Your task to perform on an android device: toggle pop-ups in chrome Image 0: 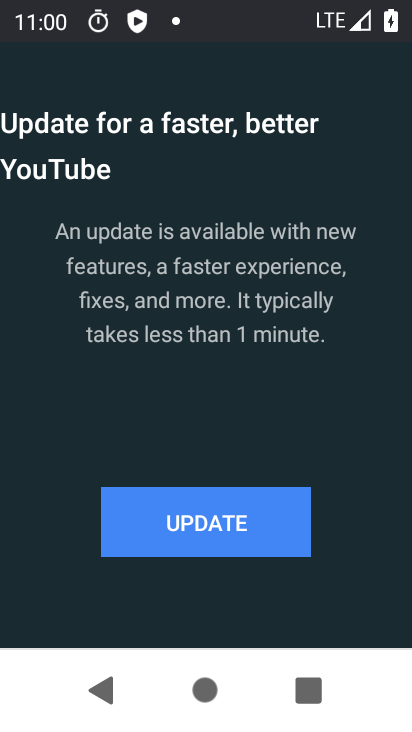
Step 0: click (242, 540)
Your task to perform on an android device: toggle pop-ups in chrome Image 1: 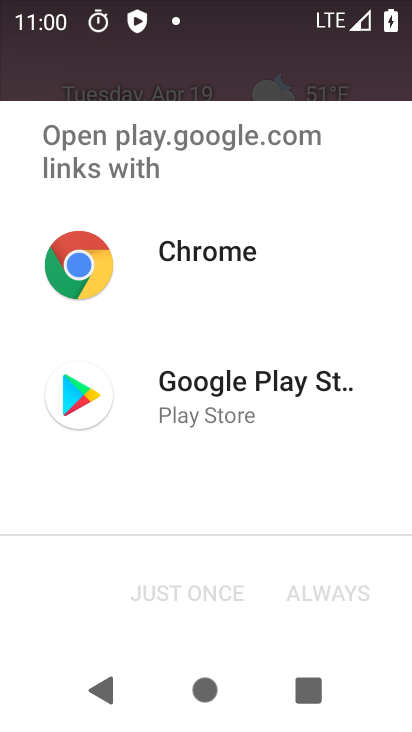
Step 1: press home button
Your task to perform on an android device: toggle pop-ups in chrome Image 2: 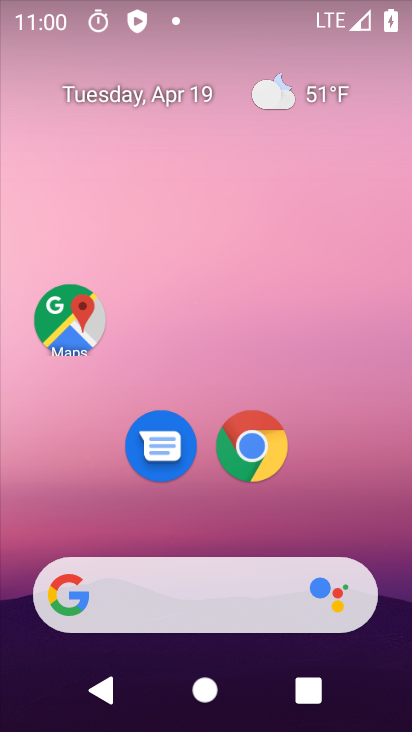
Step 2: click (250, 456)
Your task to perform on an android device: toggle pop-ups in chrome Image 3: 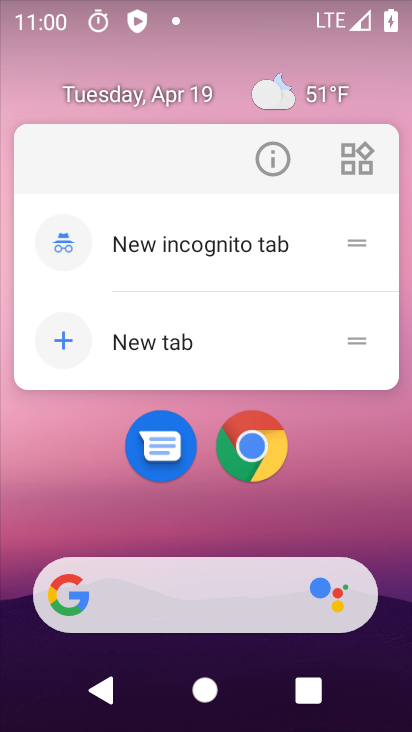
Step 3: click (250, 456)
Your task to perform on an android device: toggle pop-ups in chrome Image 4: 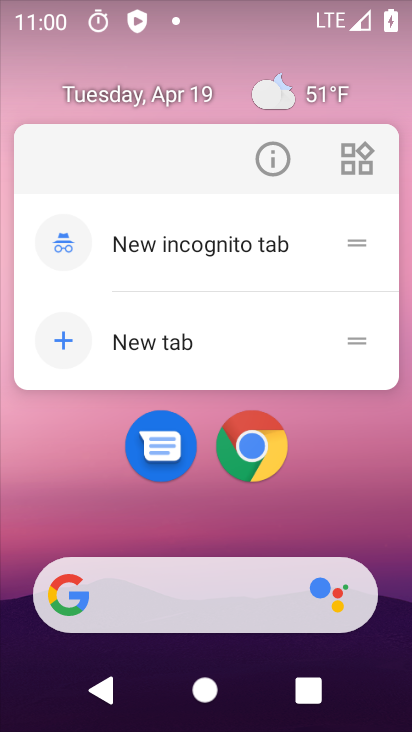
Step 4: click (250, 456)
Your task to perform on an android device: toggle pop-ups in chrome Image 5: 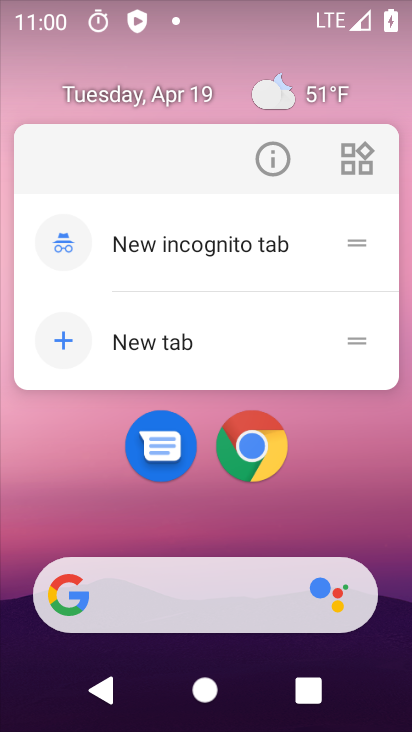
Step 5: click (250, 456)
Your task to perform on an android device: toggle pop-ups in chrome Image 6: 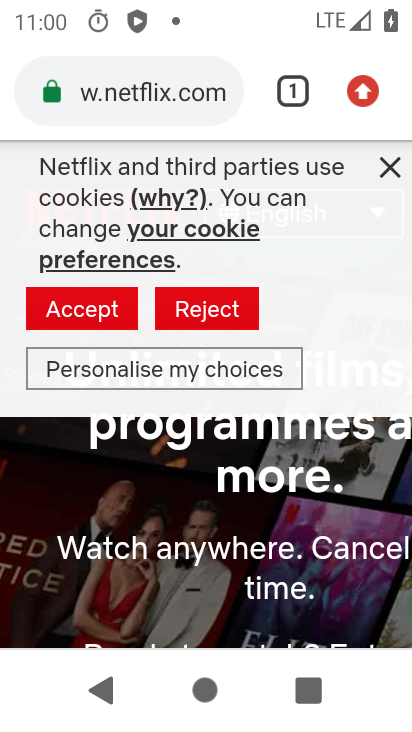
Step 6: click (365, 91)
Your task to perform on an android device: toggle pop-ups in chrome Image 7: 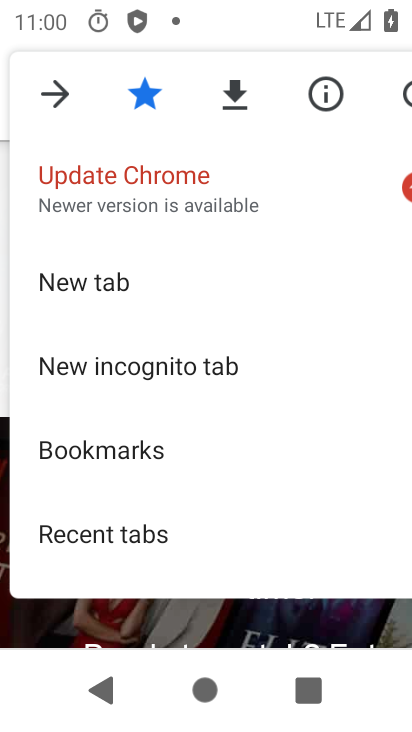
Step 7: drag from (312, 298) to (290, 135)
Your task to perform on an android device: toggle pop-ups in chrome Image 8: 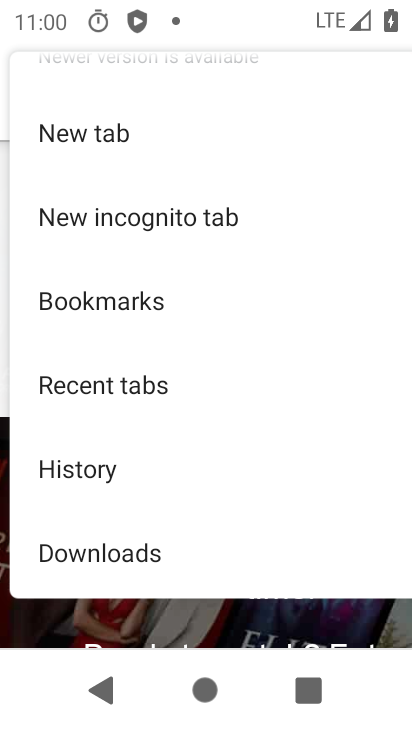
Step 8: drag from (275, 544) to (252, 196)
Your task to perform on an android device: toggle pop-ups in chrome Image 9: 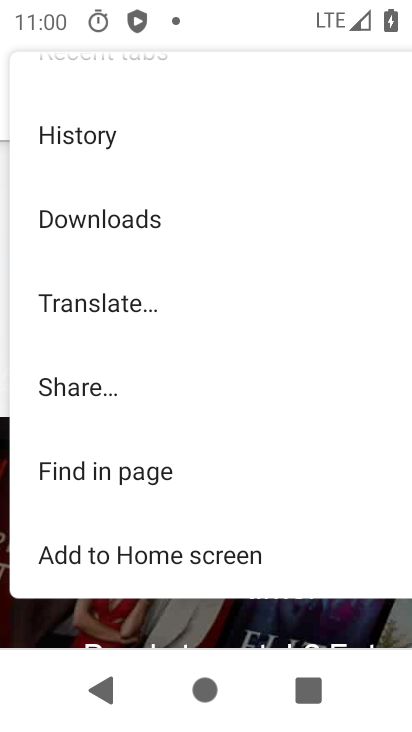
Step 9: drag from (242, 511) to (238, 174)
Your task to perform on an android device: toggle pop-ups in chrome Image 10: 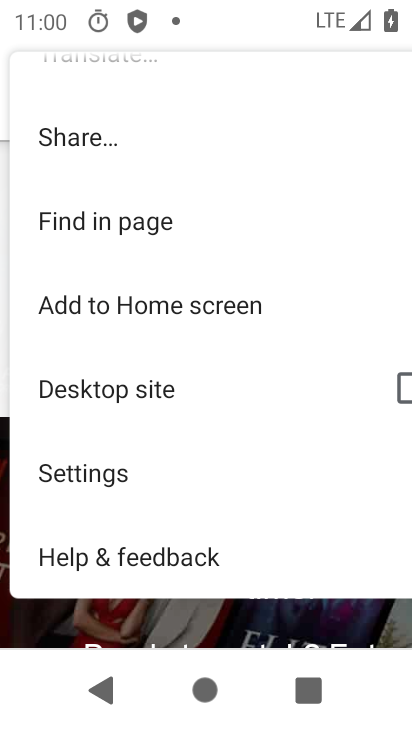
Step 10: click (105, 460)
Your task to perform on an android device: toggle pop-ups in chrome Image 11: 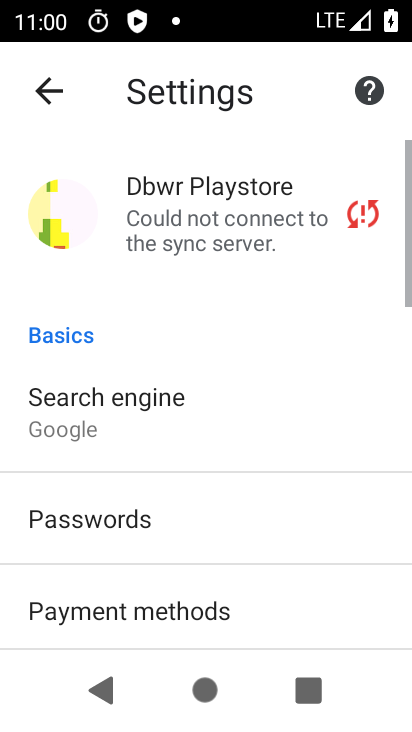
Step 11: drag from (235, 608) to (234, 231)
Your task to perform on an android device: toggle pop-ups in chrome Image 12: 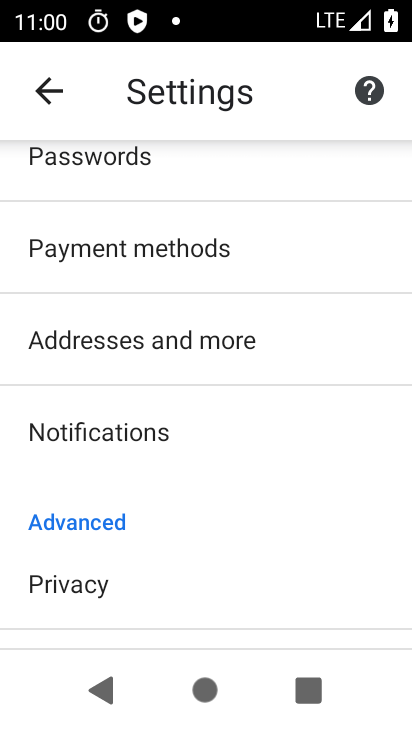
Step 12: drag from (288, 602) to (263, 206)
Your task to perform on an android device: toggle pop-ups in chrome Image 13: 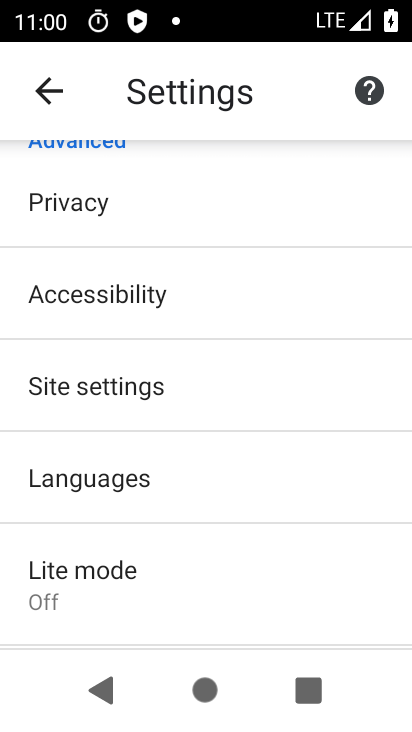
Step 13: click (84, 391)
Your task to perform on an android device: toggle pop-ups in chrome Image 14: 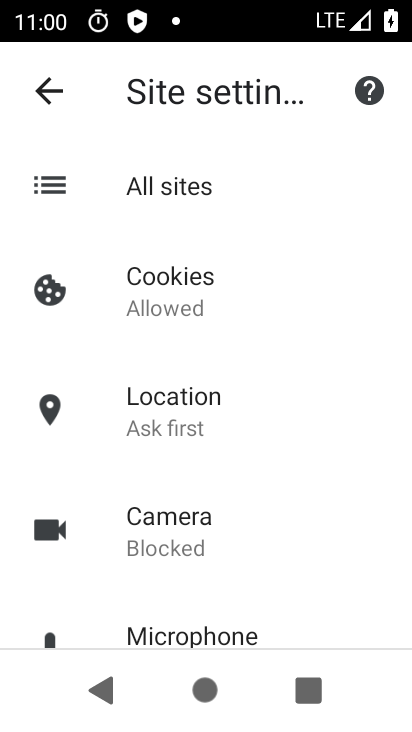
Step 14: drag from (306, 604) to (309, 264)
Your task to perform on an android device: toggle pop-ups in chrome Image 15: 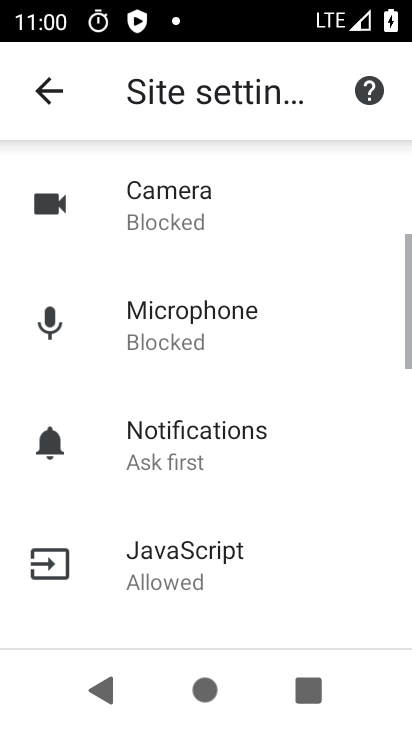
Step 15: drag from (285, 579) to (267, 241)
Your task to perform on an android device: toggle pop-ups in chrome Image 16: 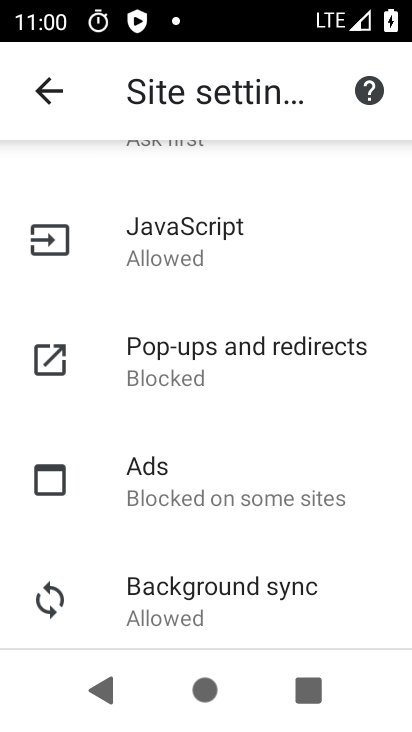
Step 16: drag from (281, 584) to (252, 231)
Your task to perform on an android device: toggle pop-ups in chrome Image 17: 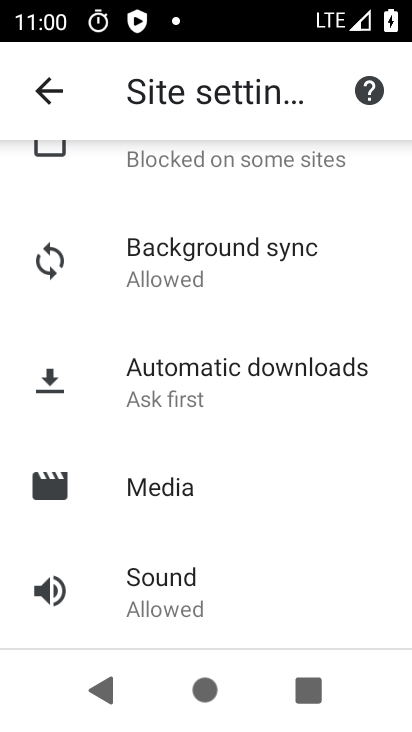
Step 17: drag from (352, 291) to (359, 503)
Your task to perform on an android device: toggle pop-ups in chrome Image 18: 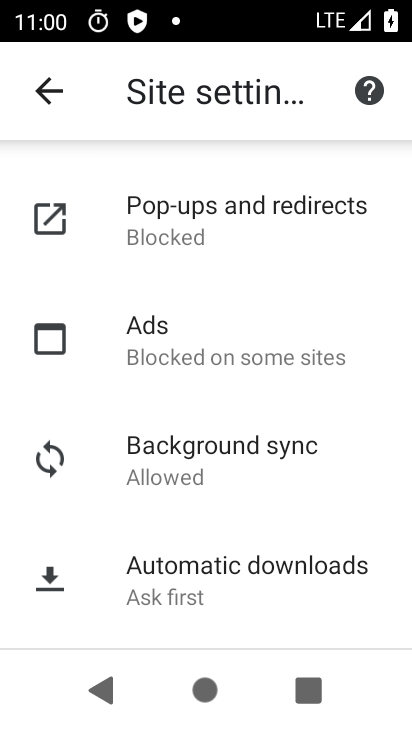
Step 18: click (158, 227)
Your task to perform on an android device: toggle pop-ups in chrome Image 19: 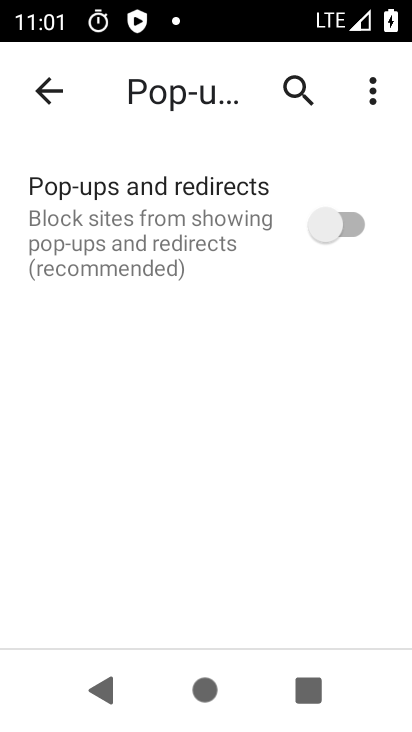
Step 19: click (346, 215)
Your task to perform on an android device: toggle pop-ups in chrome Image 20: 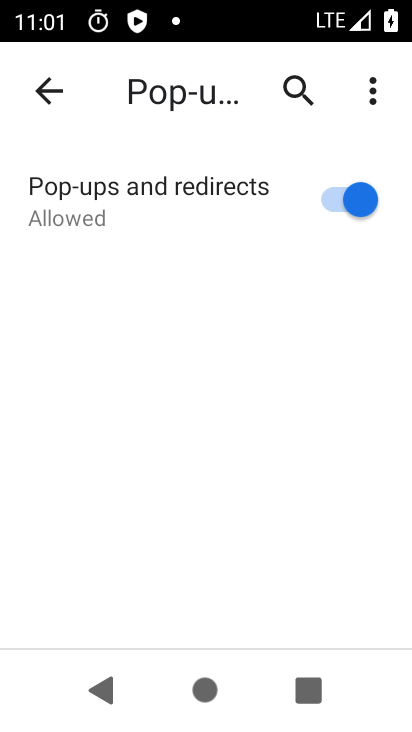
Step 20: task complete